Your task to perform on an android device: Go to Google Image 0: 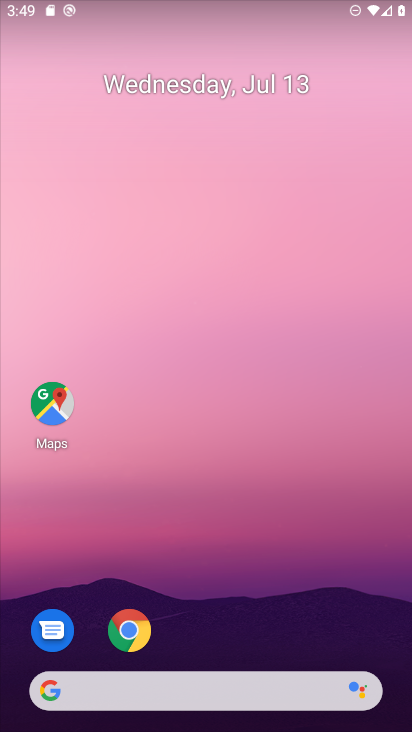
Step 0: click (168, 692)
Your task to perform on an android device: Go to Google Image 1: 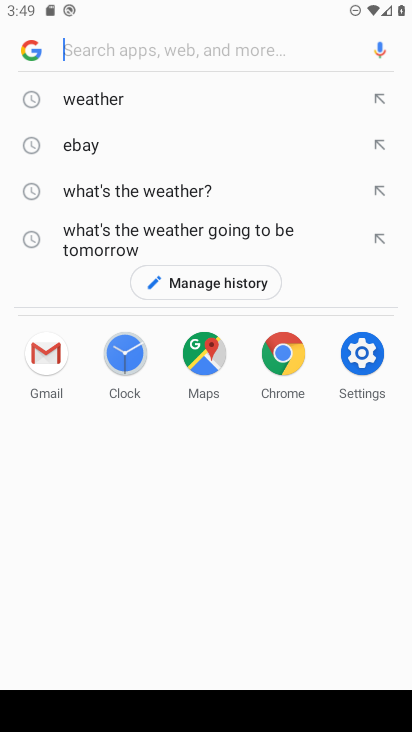
Step 1: task complete